Your task to perform on an android device: Open Youtube and go to the subscriptions tab Image 0: 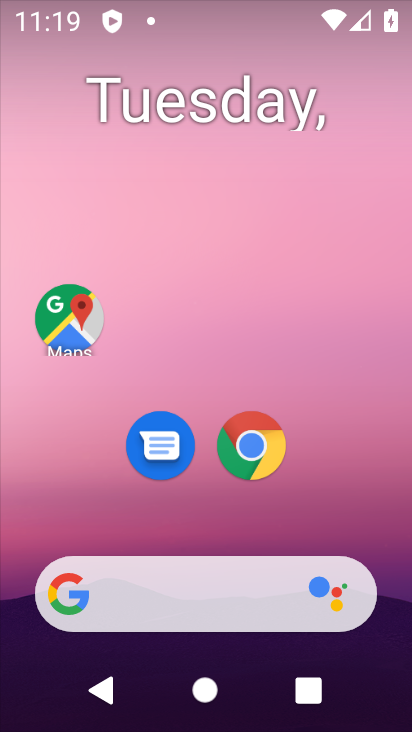
Step 0: drag from (325, 465) to (257, 7)
Your task to perform on an android device: Open Youtube and go to the subscriptions tab Image 1: 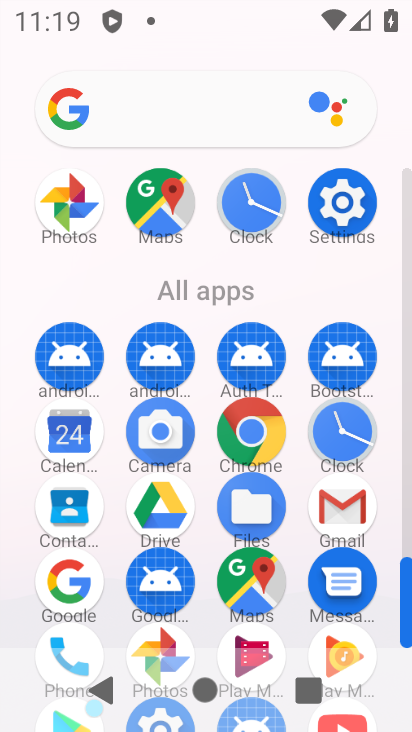
Step 1: drag from (13, 562) to (21, 241)
Your task to perform on an android device: Open Youtube and go to the subscriptions tab Image 2: 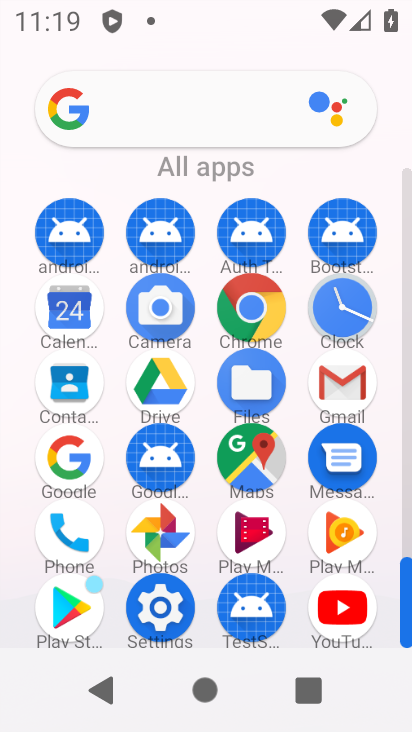
Step 2: click (341, 605)
Your task to perform on an android device: Open Youtube and go to the subscriptions tab Image 3: 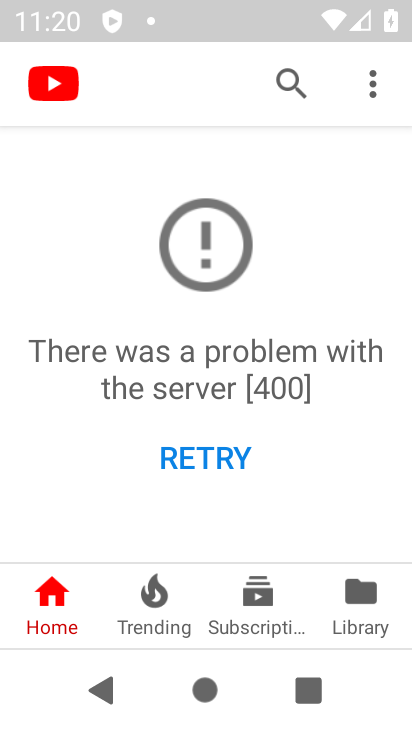
Step 3: click (257, 595)
Your task to perform on an android device: Open Youtube and go to the subscriptions tab Image 4: 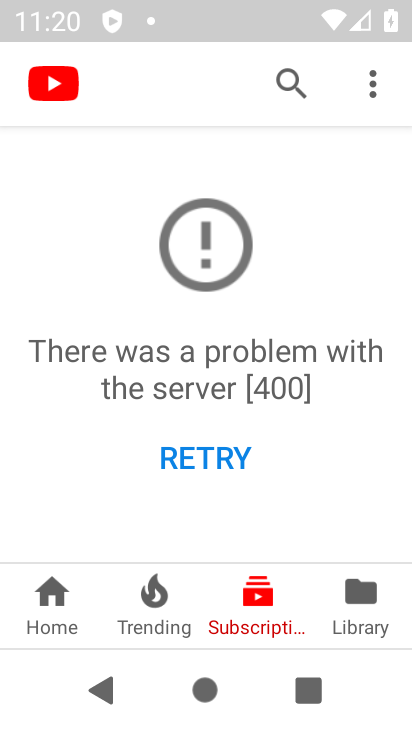
Step 4: task complete